Your task to perform on an android device: Open calendar and show me the third week of next month Image 0: 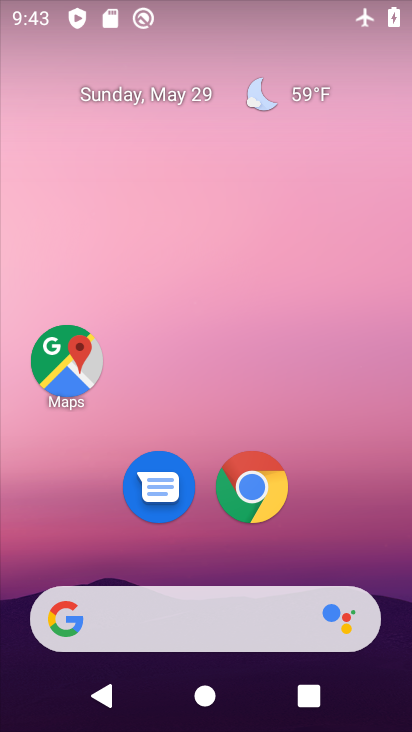
Step 0: drag from (382, 687) to (367, 125)
Your task to perform on an android device: Open calendar and show me the third week of next month Image 1: 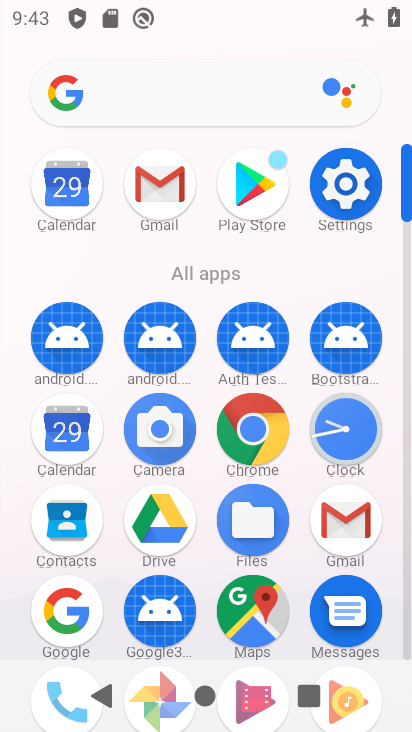
Step 1: click (49, 436)
Your task to perform on an android device: Open calendar and show me the third week of next month Image 2: 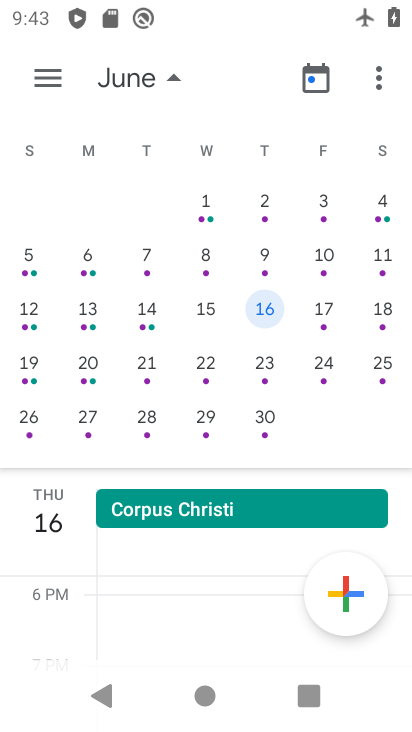
Step 2: click (212, 305)
Your task to perform on an android device: Open calendar and show me the third week of next month Image 3: 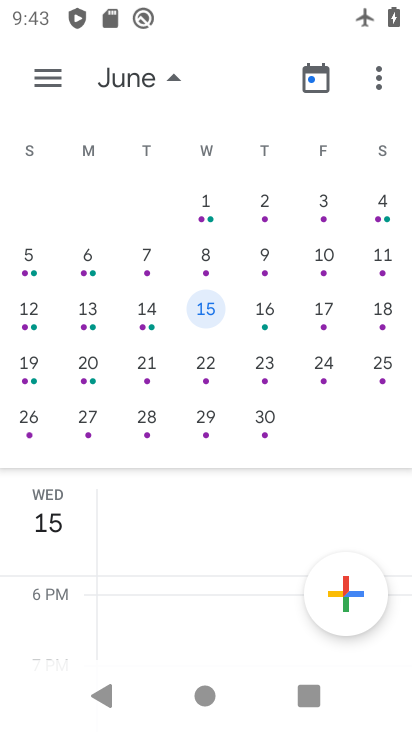
Step 3: click (48, 74)
Your task to perform on an android device: Open calendar and show me the third week of next month Image 4: 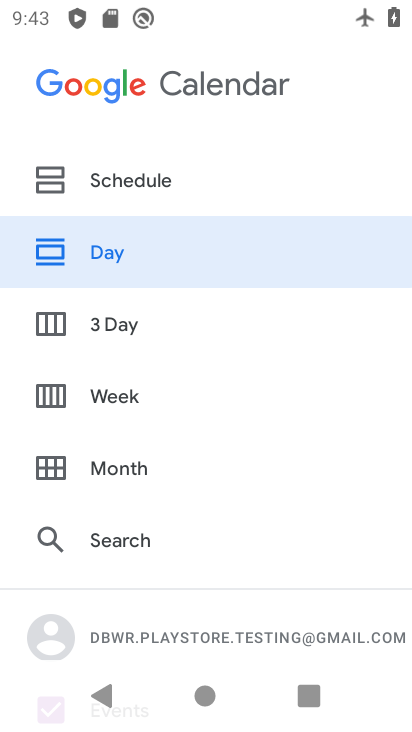
Step 4: click (107, 399)
Your task to perform on an android device: Open calendar and show me the third week of next month Image 5: 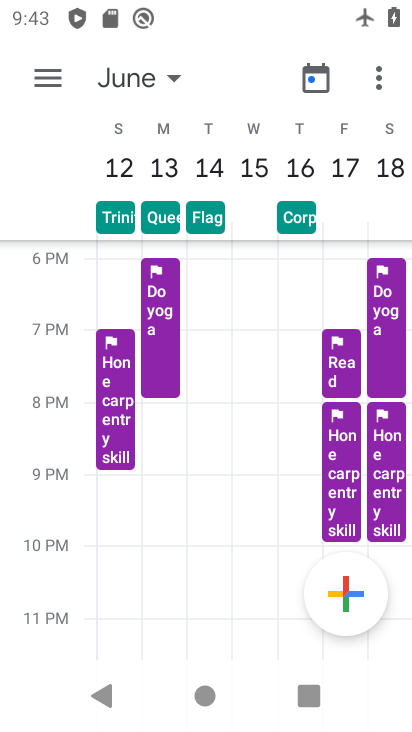
Step 5: task complete